Your task to perform on an android device: turn off smart reply in the gmail app Image 0: 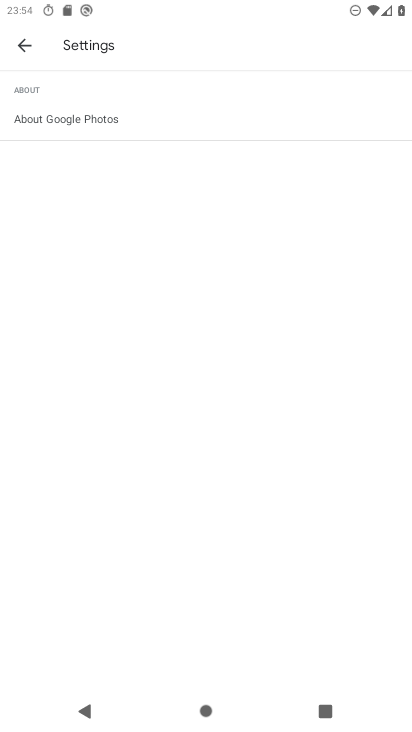
Step 0: press home button
Your task to perform on an android device: turn off smart reply in the gmail app Image 1: 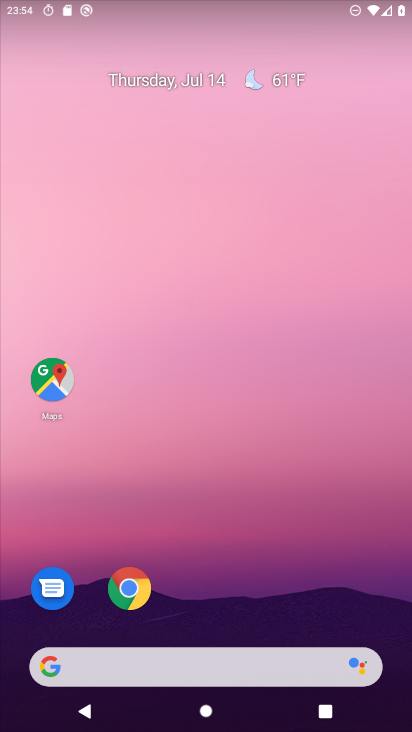
Step 1: drag from (214, 647) to (252, 130)
Your task to perform on an android device: turn off smart reply in the gmail app Image 2: 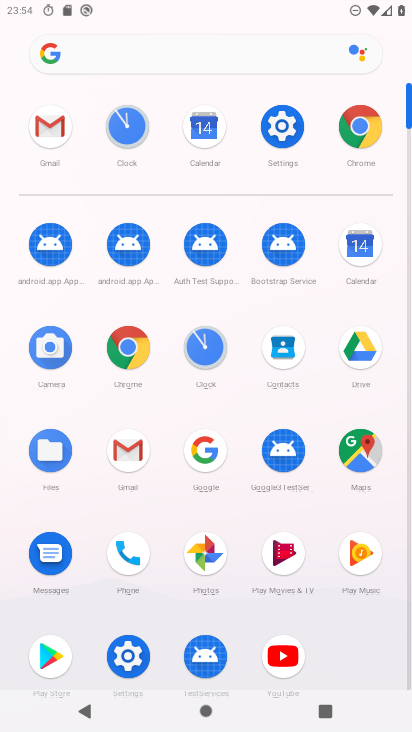
Step 2: click (108, 453)
Your task to perform on an android device: turn off smart reply in the gmail app Image 3: 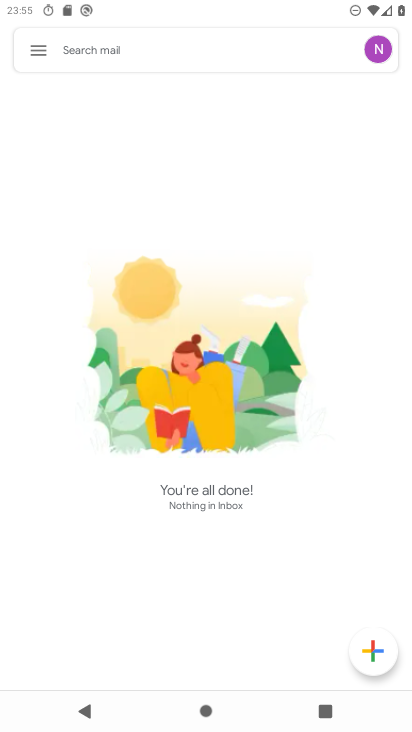
Step 3: click (42, 48)
Your task to perform on an android device: turn off smart reply in the gmail app Image 4: 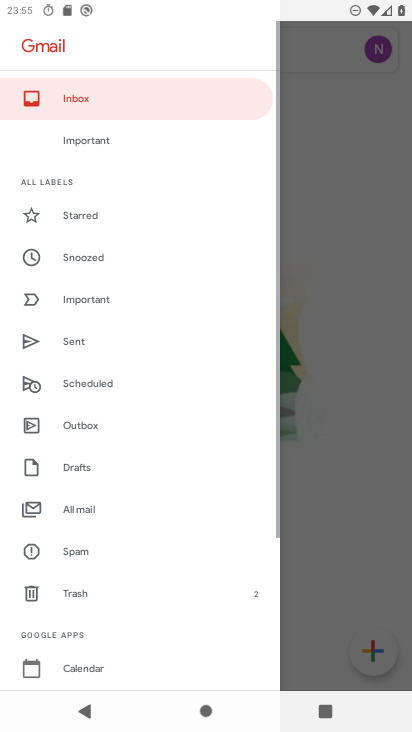
Step 4: drag from (112, 624) to (128, 147)
Your task to perform on an android device: turn off smart reply in the gmail app Image 5: 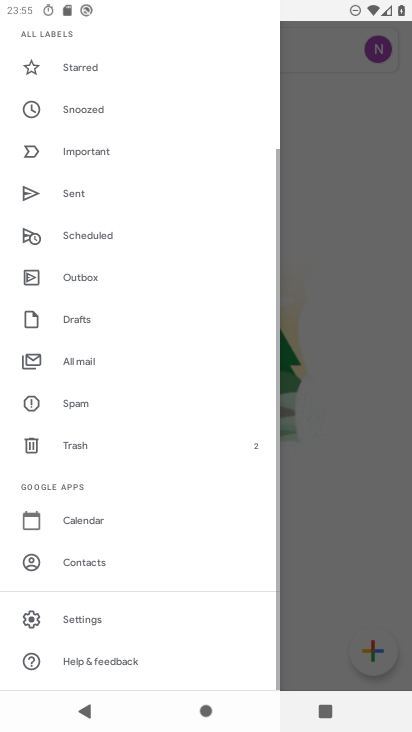
Step 5: click (93, 625)
Your task to perform on an android device: turn off smart reply in the gmail app Image 6: 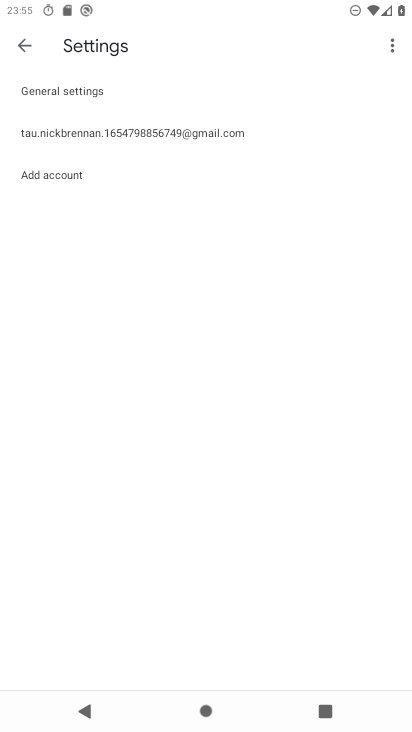
Step 6: click (125, 140)
Your task to perform on an android device: turn off smart reply in the gmail app Image 7: 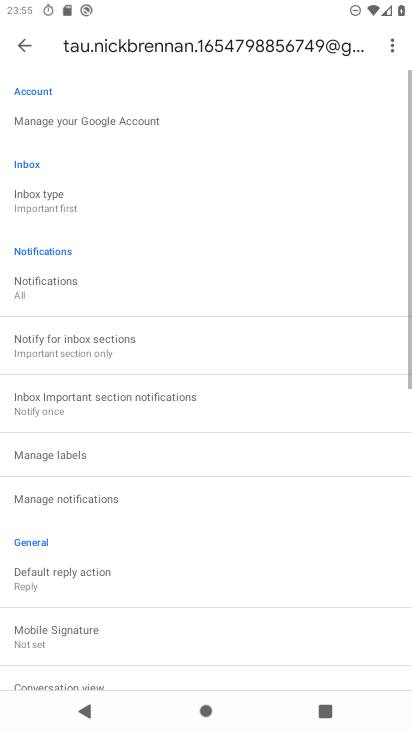
Step 7: drag from (156, 618) to (205, 237)
Your task to perform on an android device: turn off smart reply in the gmail app Image 8: 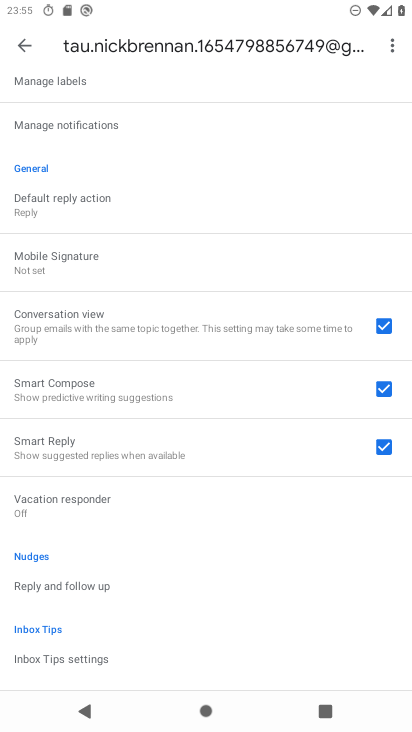
Step 8: click (367, 445)
Your task to perform on an android device: turn off smart reply in the gmail app Image 9: 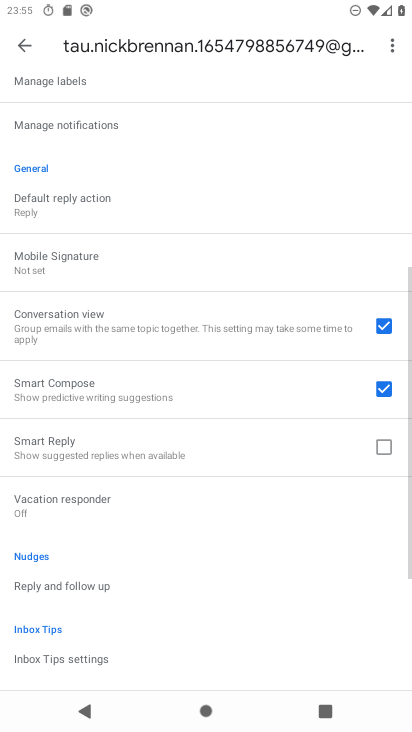
Step 9: task complete